Your task to perform on an android device: find snoozed emails in the gmail app Image 0: 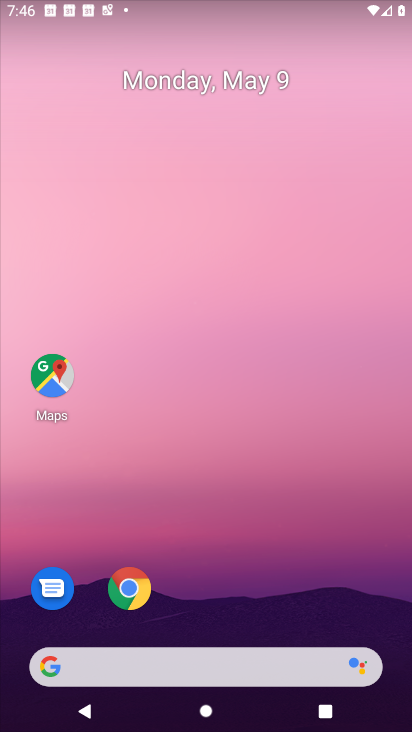
Step 0: drag from (238, 353) to (289, 210)
Your task to perform on an android device: find snoozed emails in the gmail app Image 1: 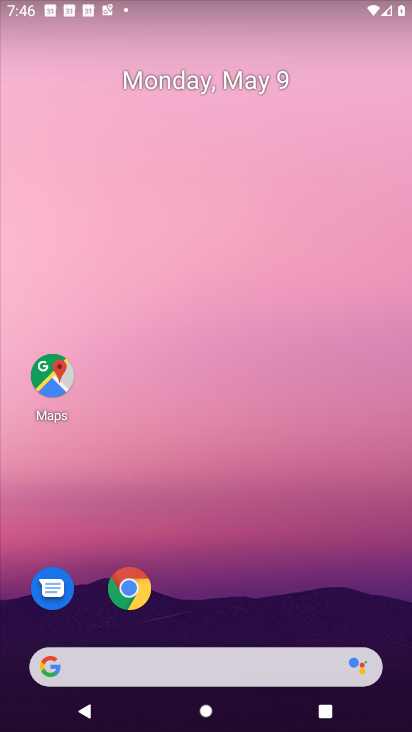
Step 1: drag from (210, 663) to (376, 41)
Your task to perform on an android device: find snoozed emails in the gmail app Image 2: 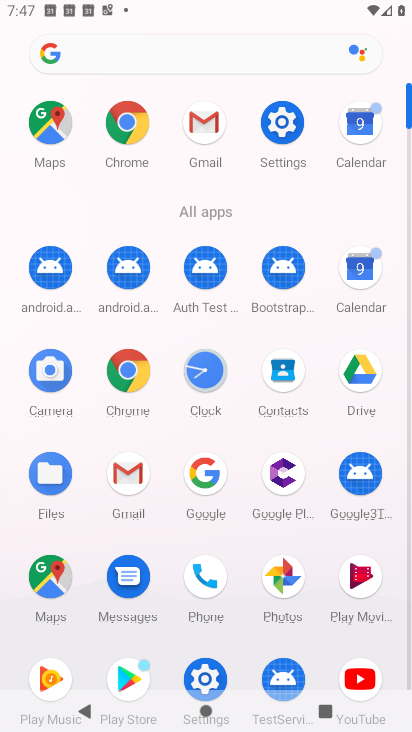
Step 2: click (195, 132)
Your task to perform on an android device: find snoozed emails in the gmail app Image 3: 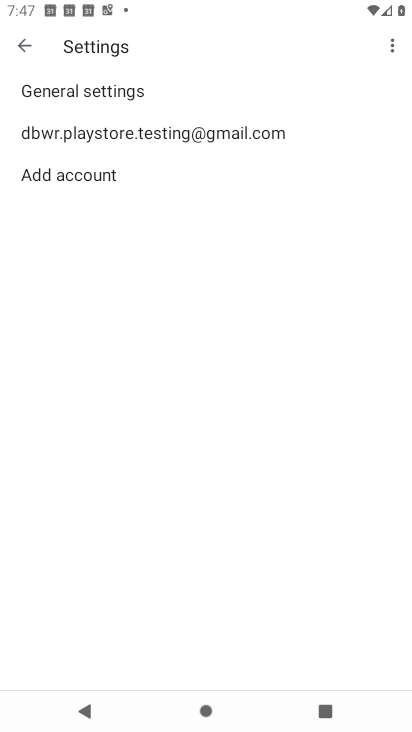
Step 3: click (26, 40)
Your task to perform on an android device: find snoozed emails in the gmail app Image 4: 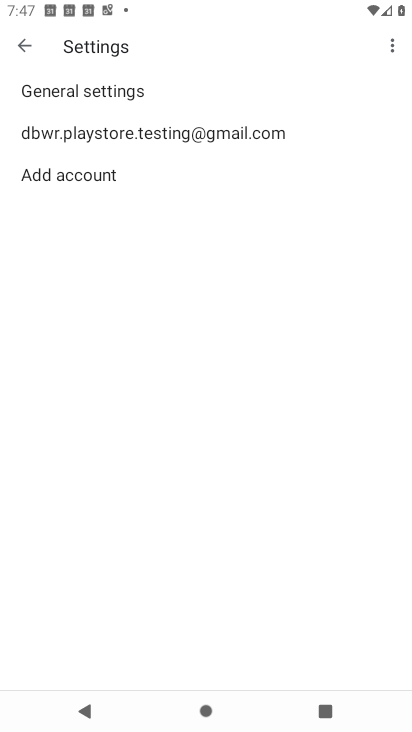
Step 4: click (23, 42)
Your task to perform on an android device: find snoozed emails in the gmail app Image 5: 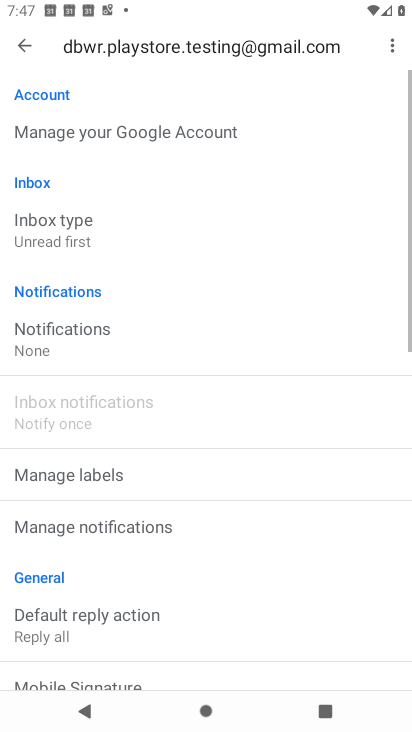
Step 5: click (23, 42)
Your task to perform on an android device: find snoozed emails in the gmail app Image 6: 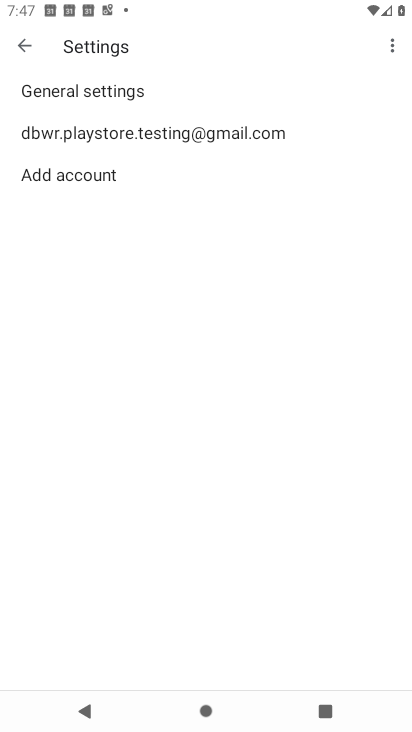
Step 6: click (23, 42)
Your task to perform on an android device: find snoozed emails in the gmail app Image 7: 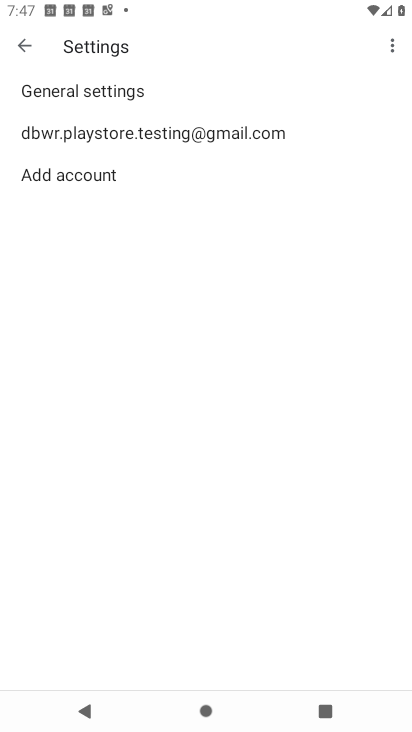
Step 7: click (25, 48)
Your task to perform on an android device: find snoozed emails in the gmail app Image 8: 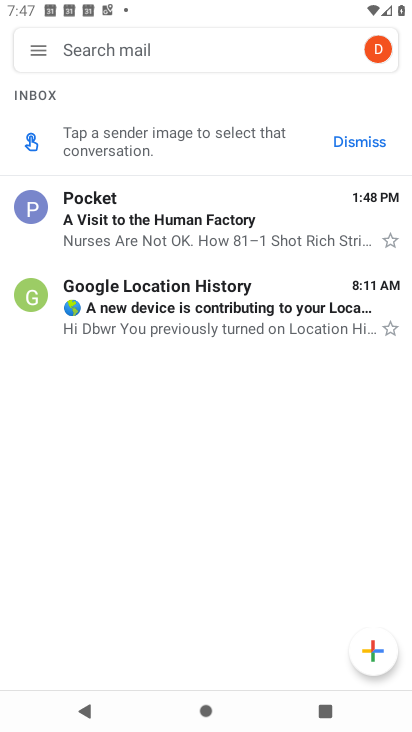
Step 8: click (38, 52)
Your task to perform on an android device: find snoozed emails in the gmail app Image 9: 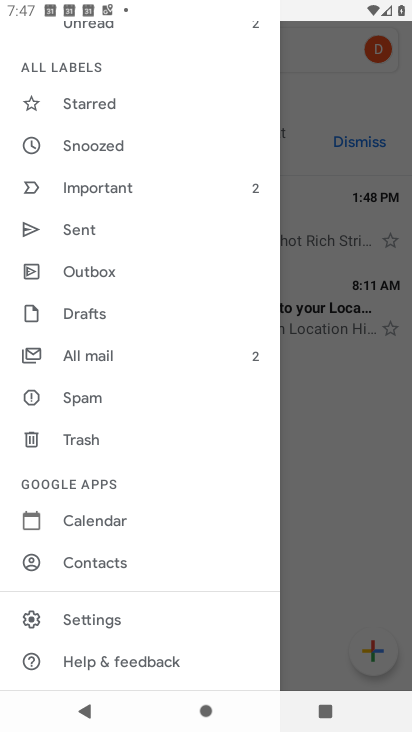
Step 9: click (117, 145)
Your task to perform on an android device: find snoozed emails in the gmail app Image 10: 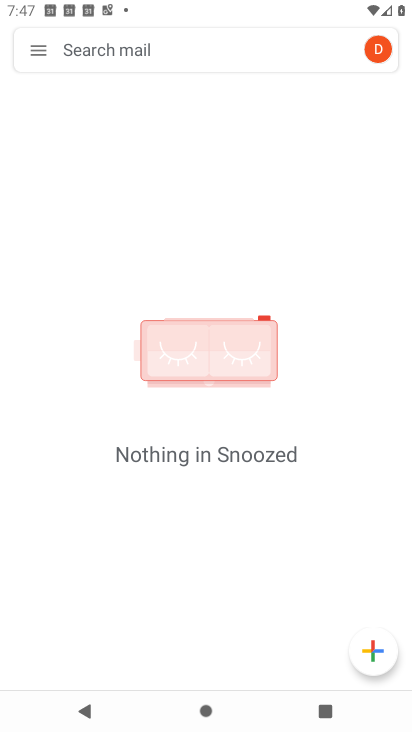
Step 10: task complete